Your task to perform on an android device: read, delete, or share a saved page in the chrome app Image 0: 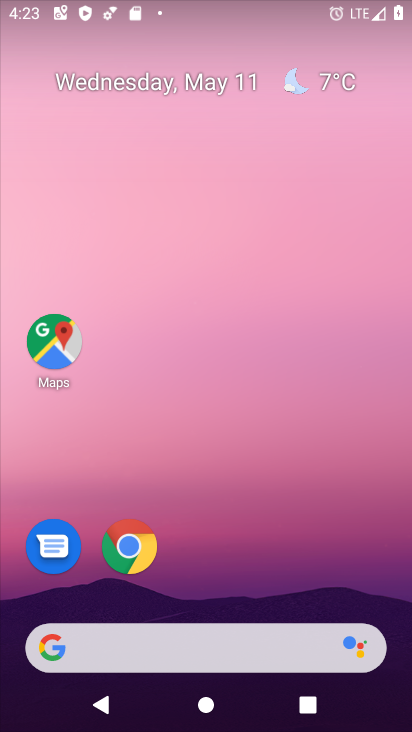
Step 0: drag from (322, 620) to (298, 108)
Your task to perform on an android device: read, delete, or share a saved page in the chrome app Image 1: 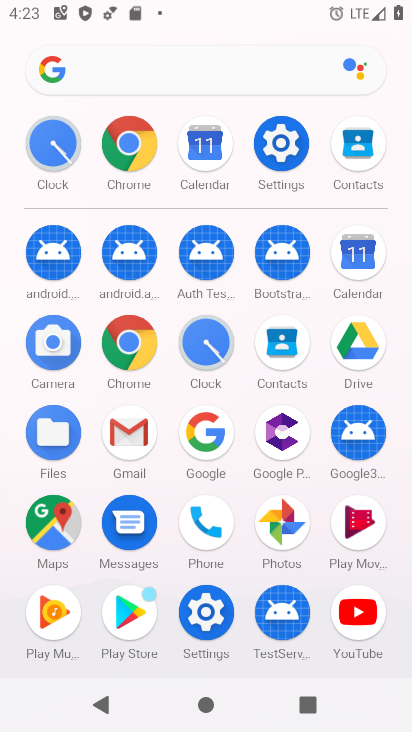
Step 1: click (120, 353)
Your task to perform on an android device: read, delete, or share a saved page in the chrome app Image 2: 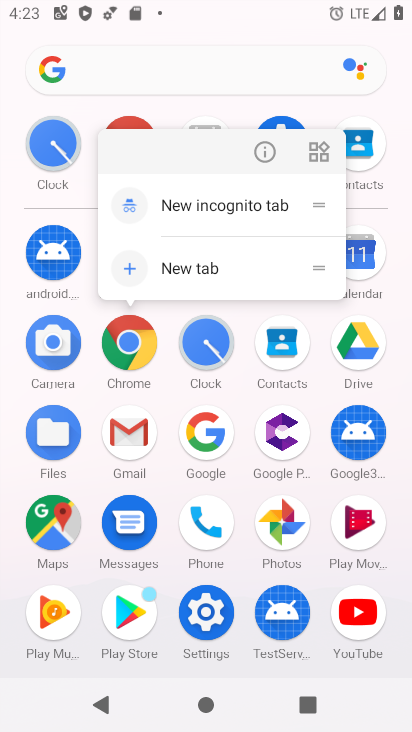
Step 2: click (110, 350)
Your task to perform on an android device: read, delete, or share a saved page in the chrome app Image 3: 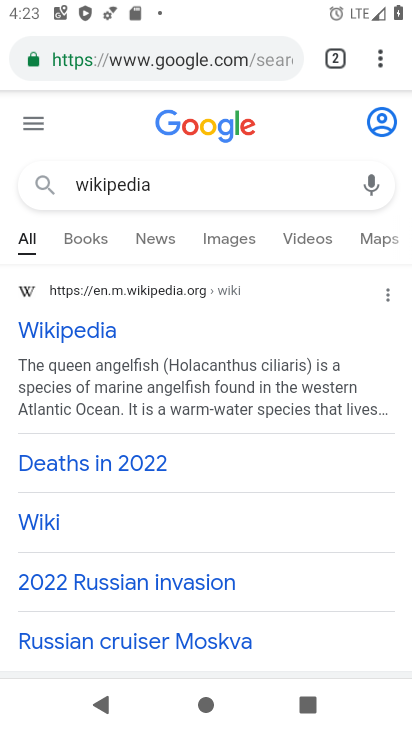
Step 3: task complete